Your task to perform on an android device: Play the last video I watched on Youtube Image 0: 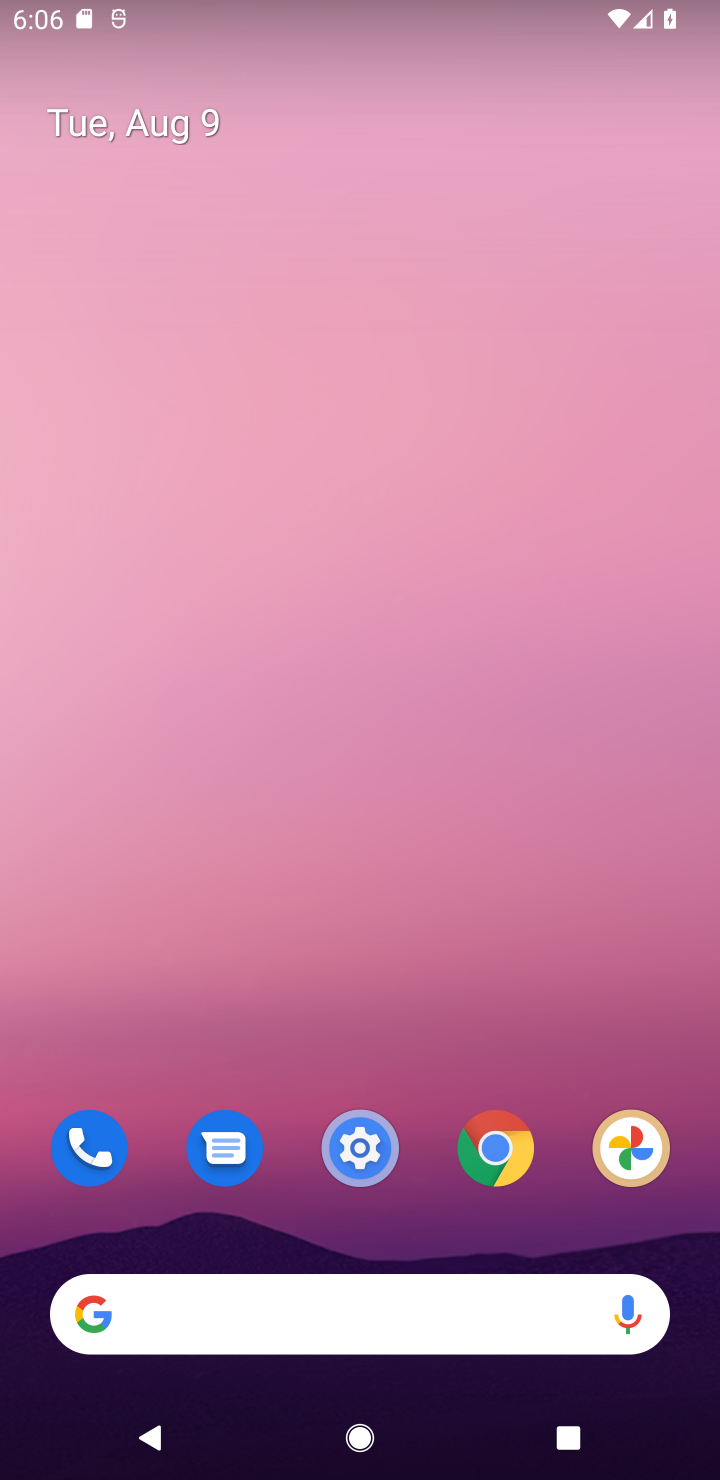
Step 0: drag from (419, 1251) to (451, 10)
Your task to perform on an android device: Play the last video I watched on Youtube Image 1: 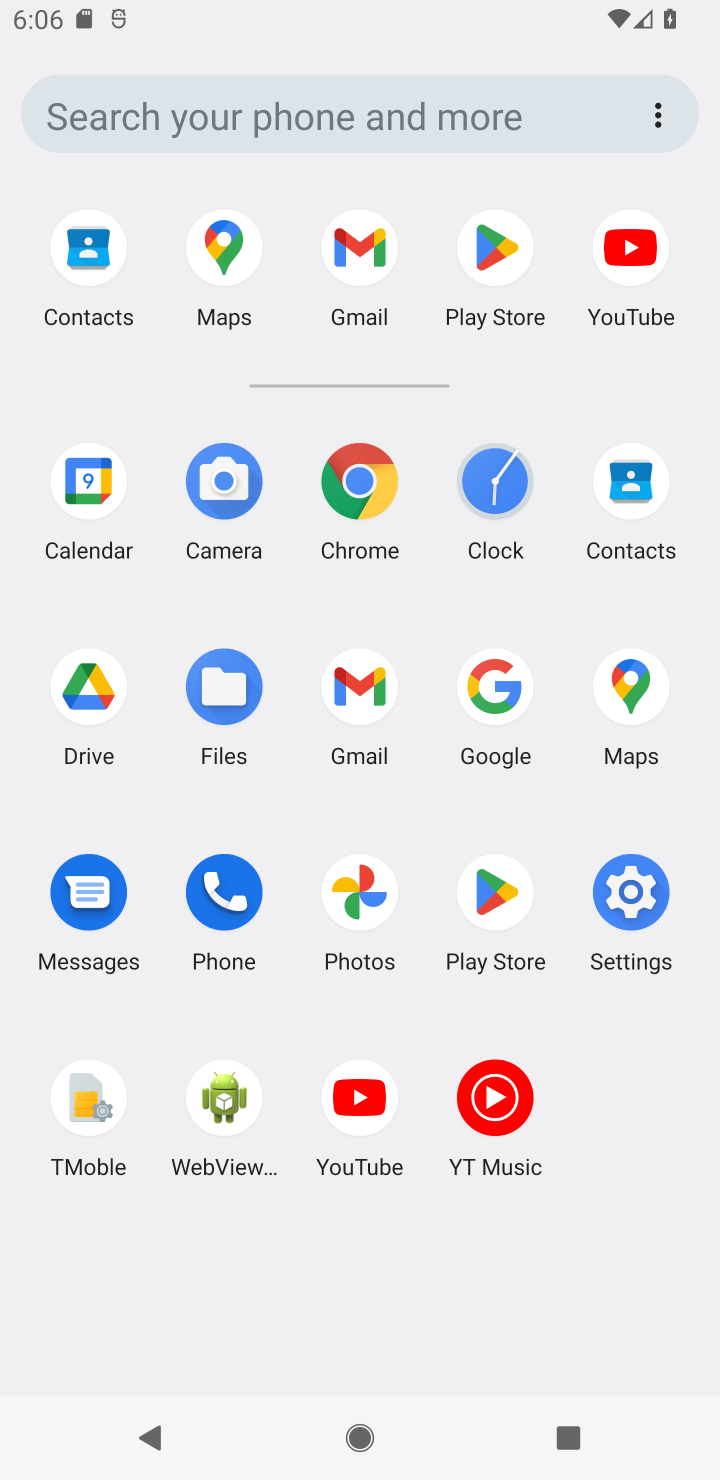
Step 1: click (362, 1153)
Your task to perform on an android device: Play the last video I watched on Youtube Image 2: 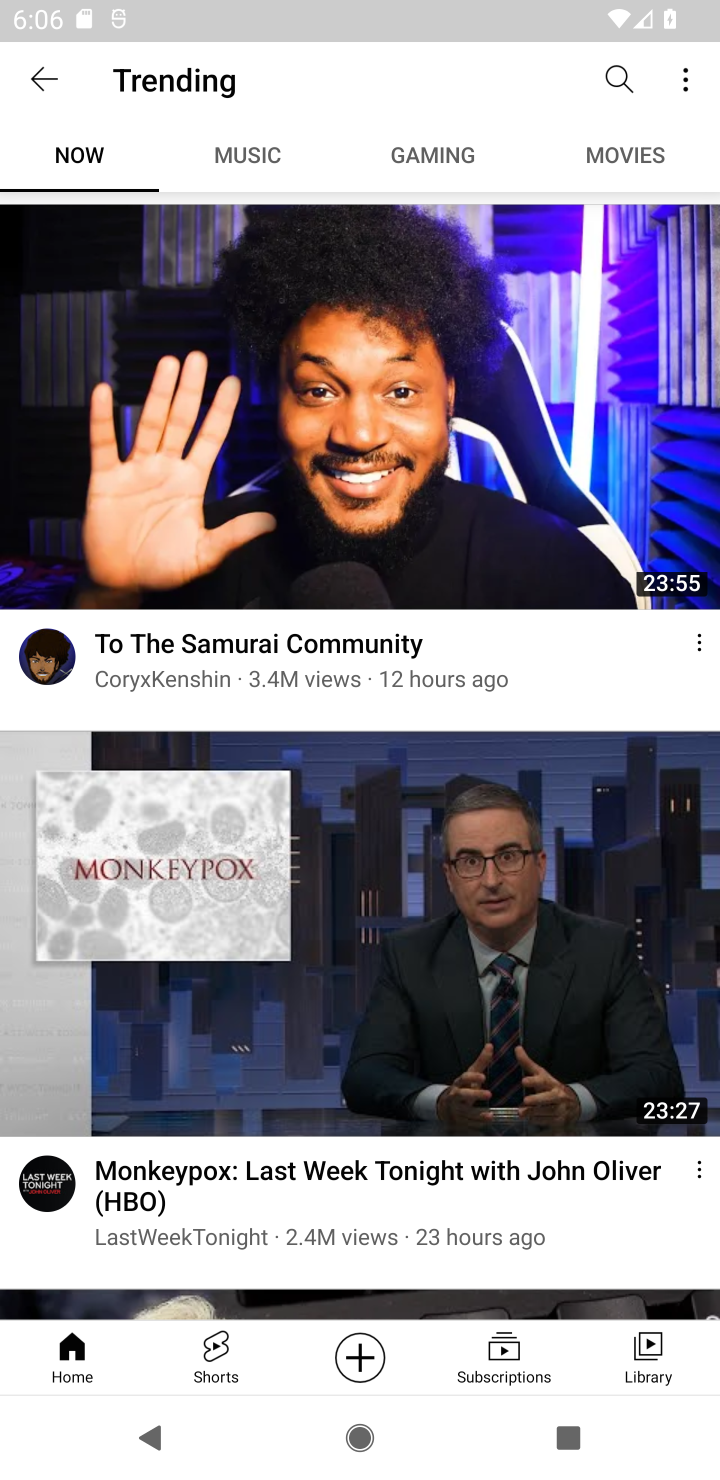
Step 2: click (643, 1369)
Your task to perform on an android device: Play the last video I watched on Youtube Image 3: 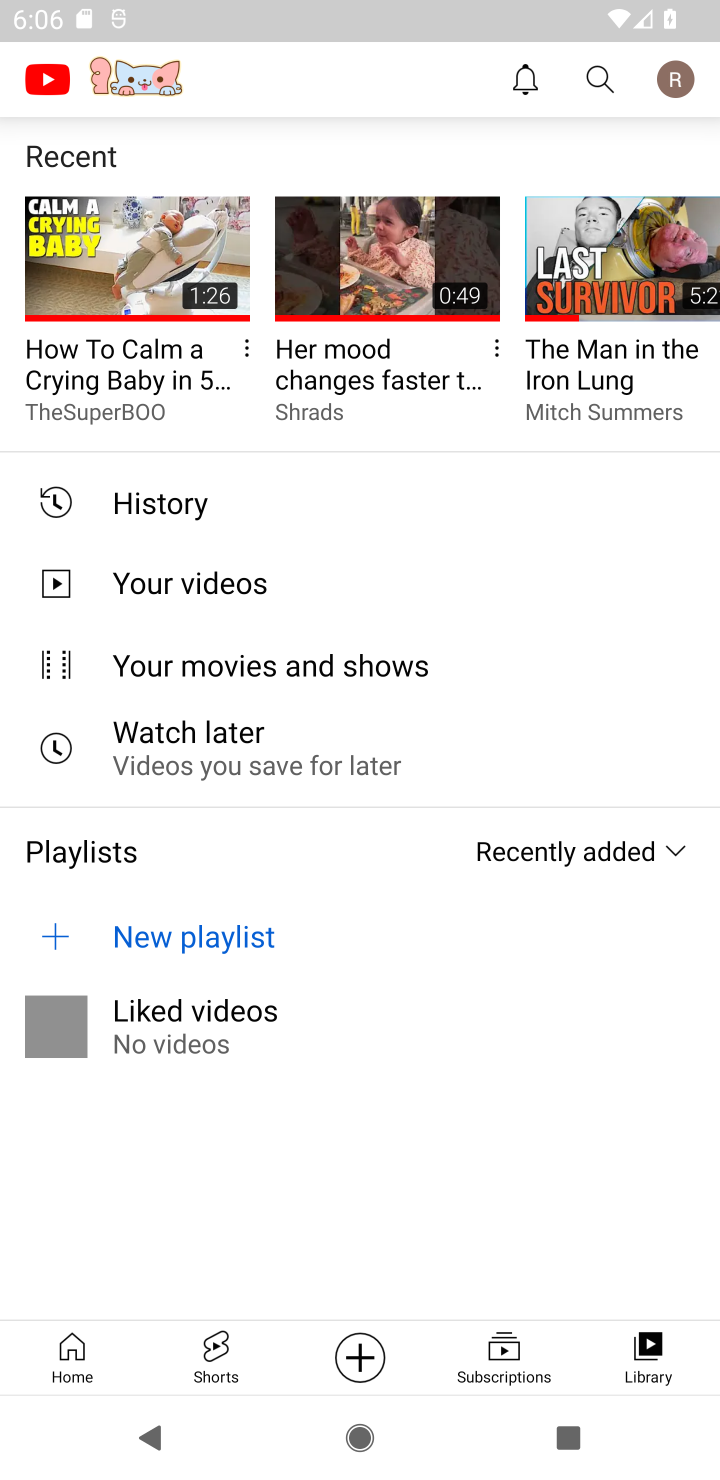
Step 3: click (148, 272)
Your task to perform on an android device: Play the last video I watched on Youtube Image 4: 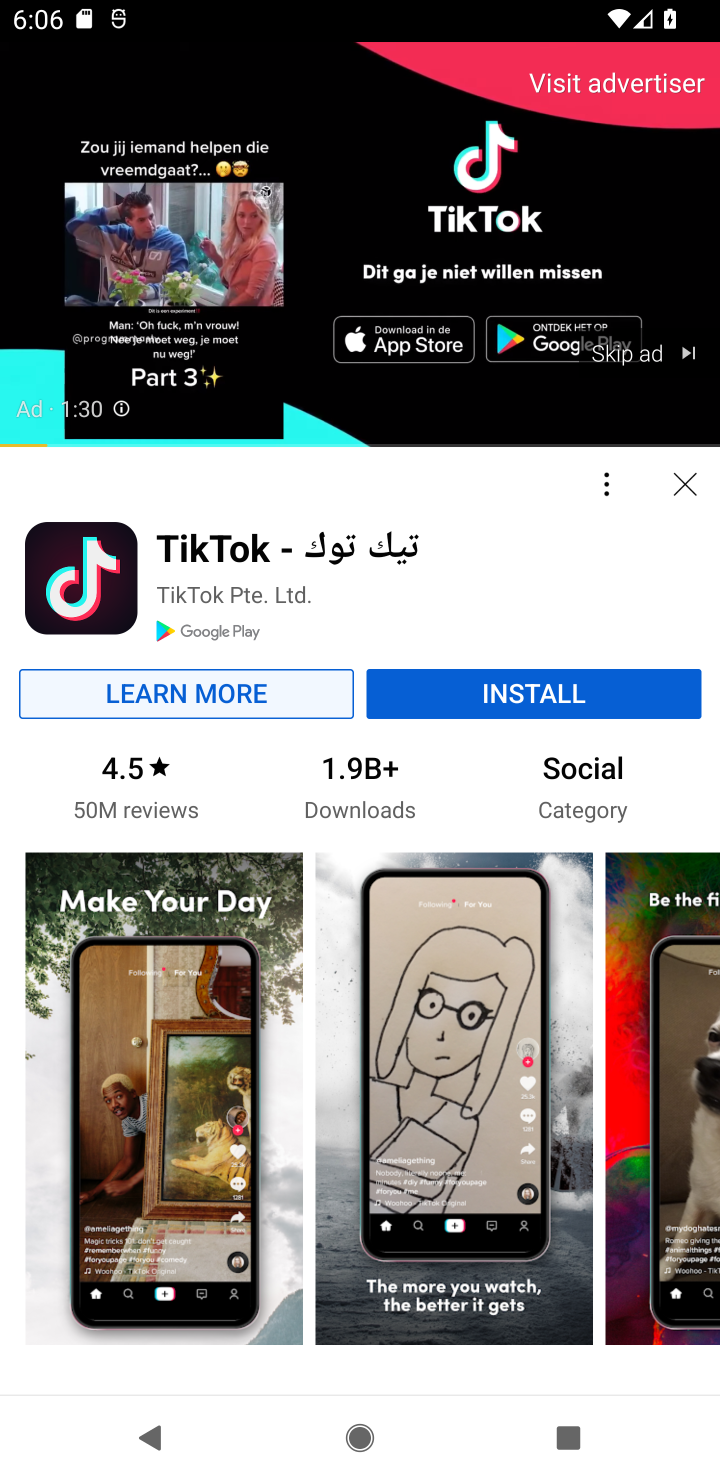
Step 4: task complete